Your task to perform on an android device: change notifications settings Image 0: 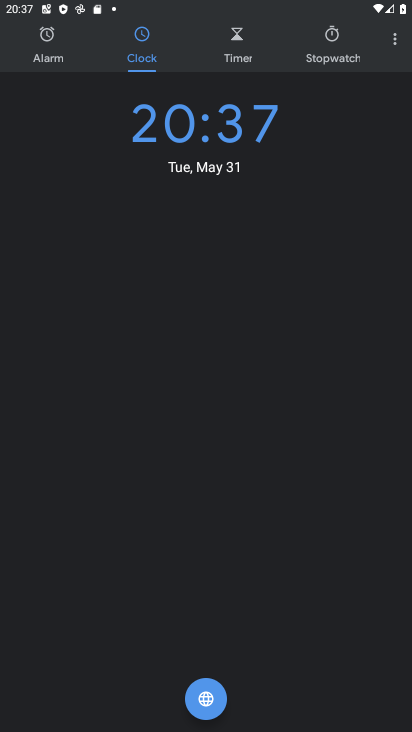
Step 0: press home button
Your task to perform on an android device: change notifications settings Image 1: 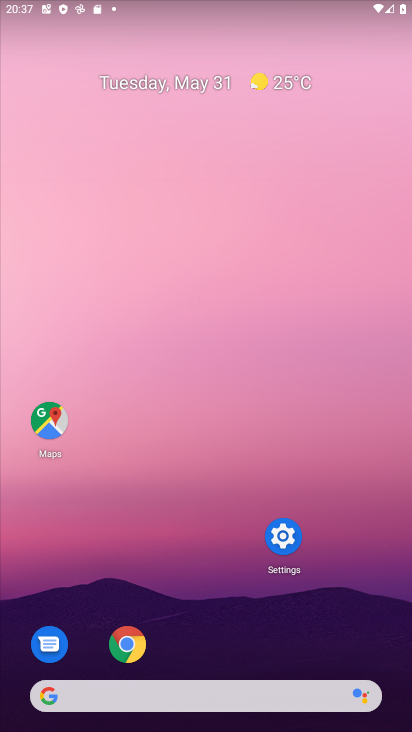
Step 1: drag from (235, 720) to (95, 3)
Your task to perform on an android device: change notifications settings Image 2: 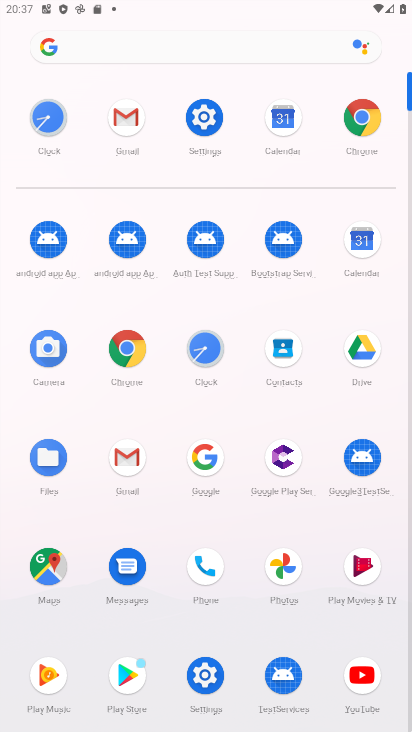
Step 2: click (207, 680)
Your task to perform on an android device: change notifications settings Image 3: 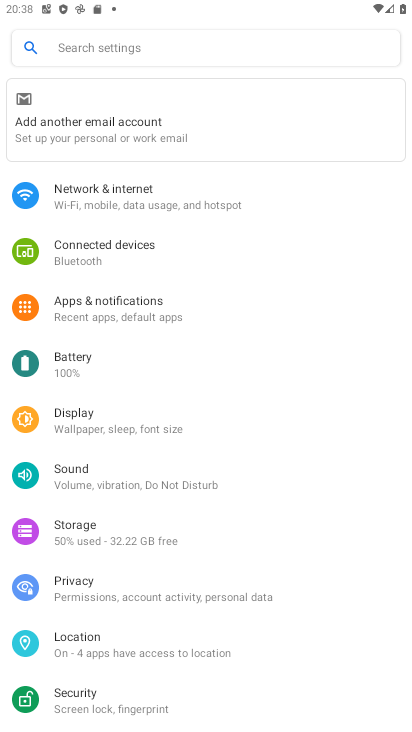
Step 3: click (128, 50)
Your task to perform on an android device: change notifications settings Image 4: 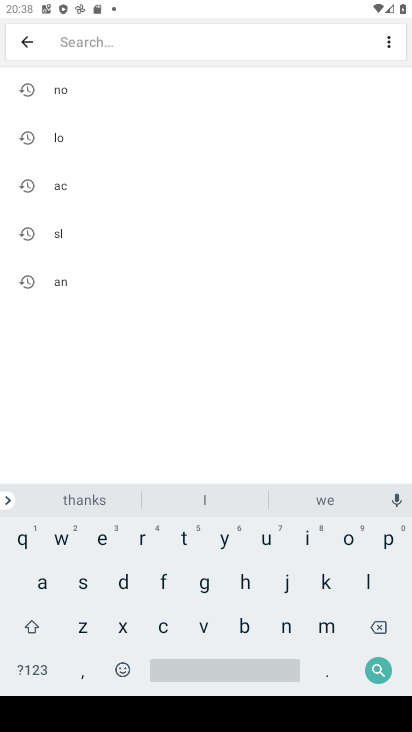
Step 4: click (289, 623)
Your task to perform on an android device: change notifications settings Image 5: 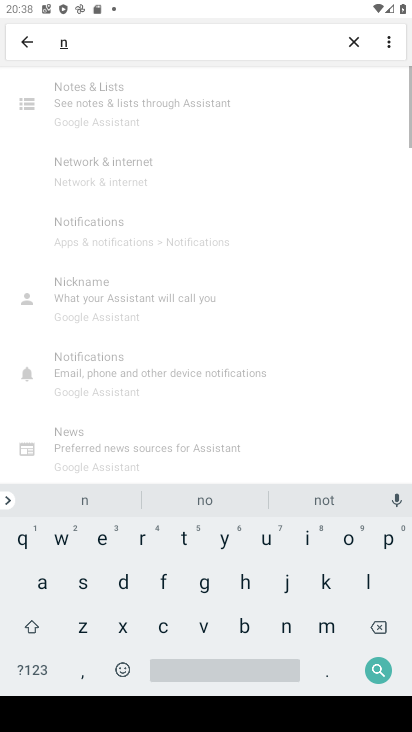
Step 5: click (348, 545)
Your task to perform on an android device: change notifications settings Image 6: 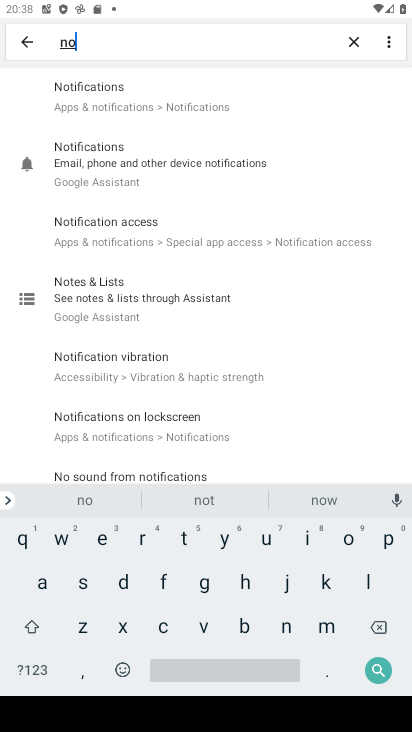
Step 6: click (106, 108)
Your task to perform on an android device: change notifications settings Image 7: 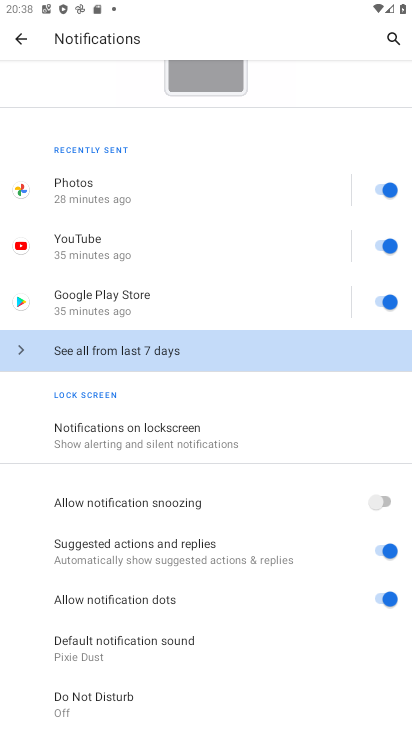
Step 7: click (85, 441)
Your task to perform on an android device: change notifications settings Image 8: 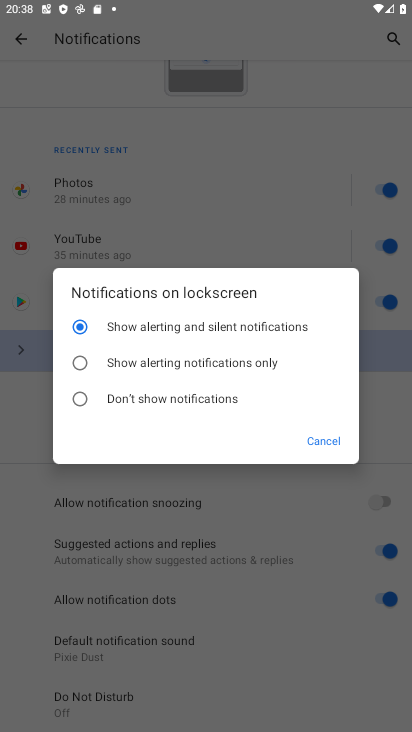
Step 8: click (148, 327)
Your task to perform on an android device: change notifications settings Image 9: 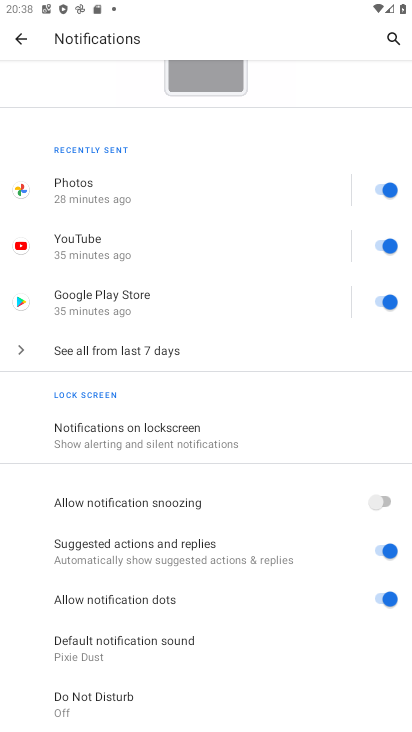
Step 9: task complete